Your task to perform on an android device: Go to Google Image 0: 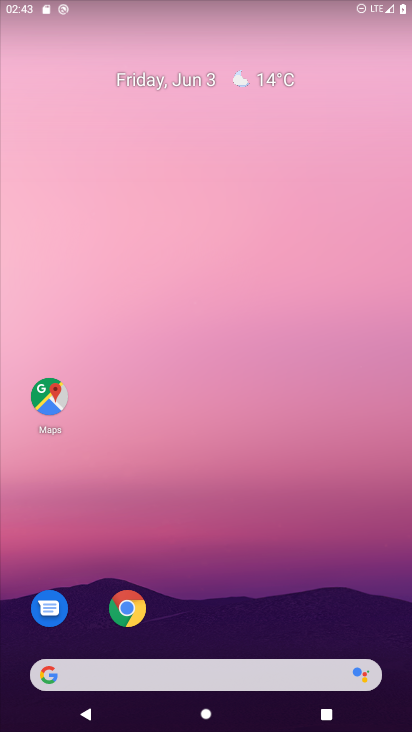
Step 0: drag from (254, 584) to (268, 122)
Your task to perform on an android device: Go to Google Image 1: 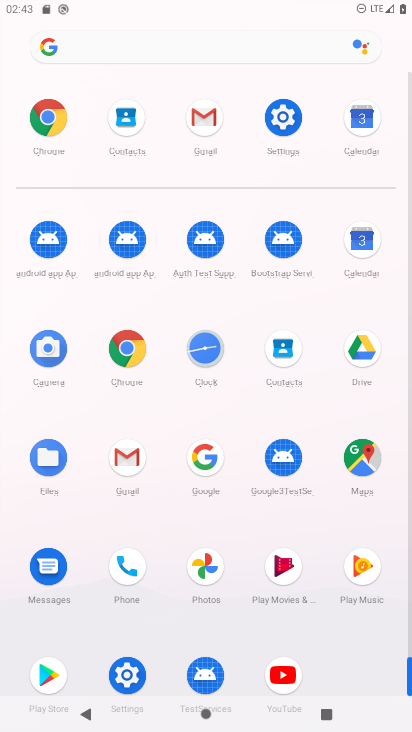
Step 1: click (208, 468)
Your task to perform on an android device: Go to Google Image 2: 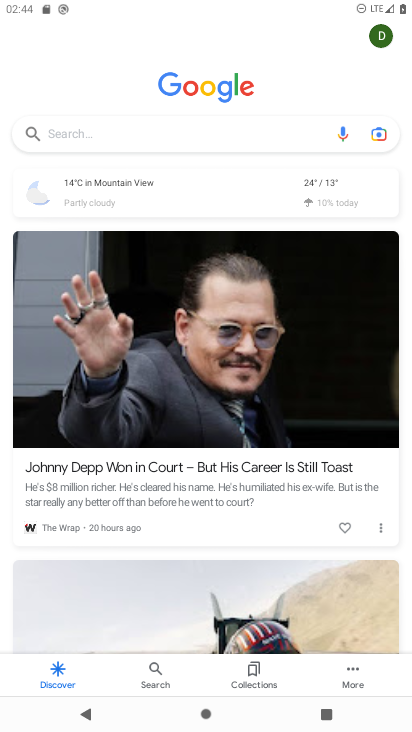
Step 2: task complete